Your task to perform on an android device: Open wifi settings Image 0: 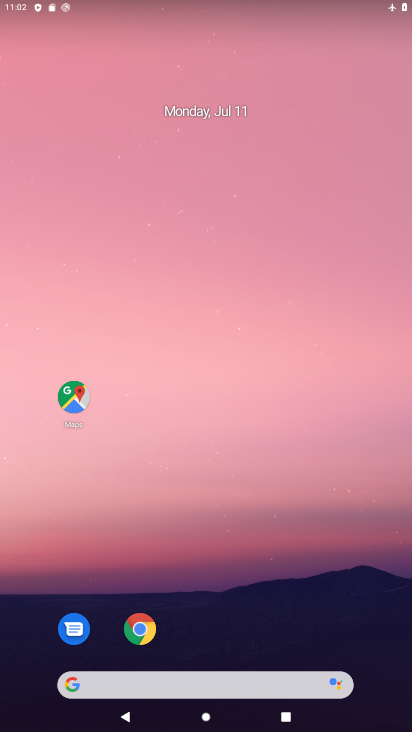
Step 0: drag from (261, 639) to (261, 187)
Your task to perform on an android device: Open wifi settings Image 1: 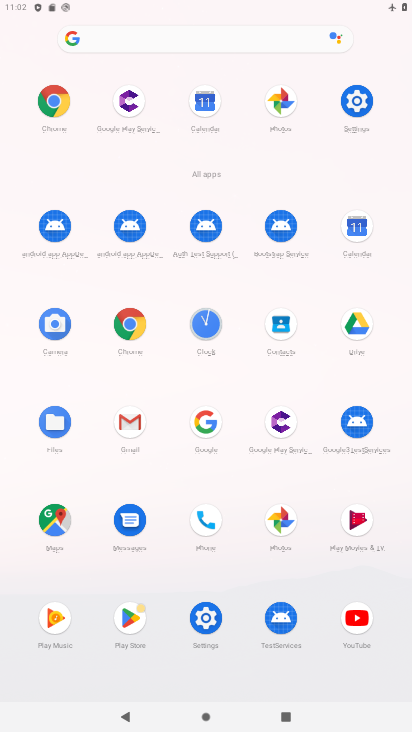
Step 1: click (356, 95)
Your task to perform on an android device: Open wifi settings Image 2: 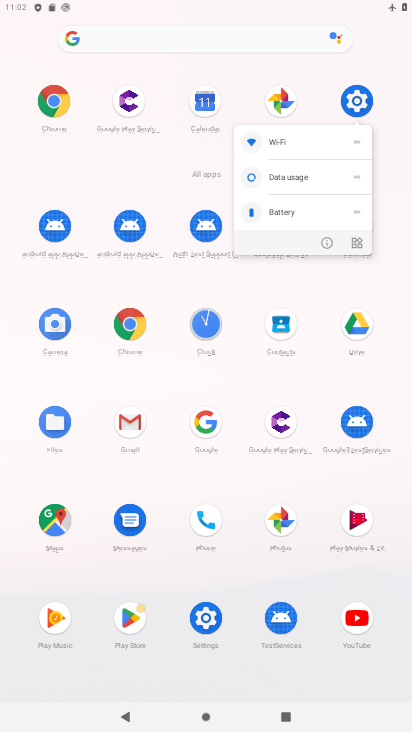
Step 2: click (356, 98)
Your task to perform on an android device: Open wifi settings Image 3: 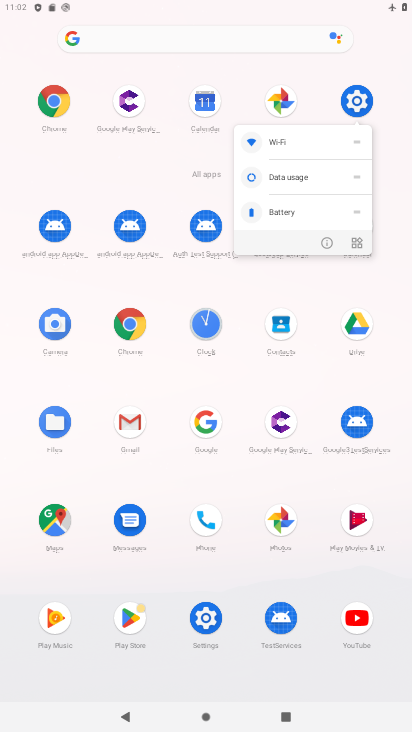
Step 3: click (354, 99)
Your task to perform on an android device: Open wifi settings Image 4: 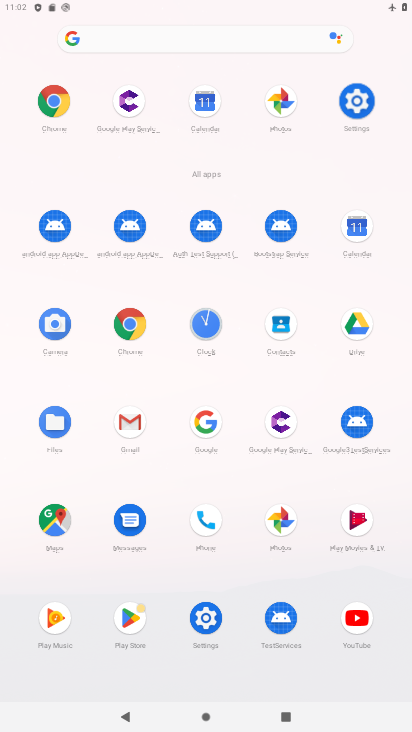
Step 4: click (357, 101)
Your task to perform on an android device: Open wifi settings Image 5: 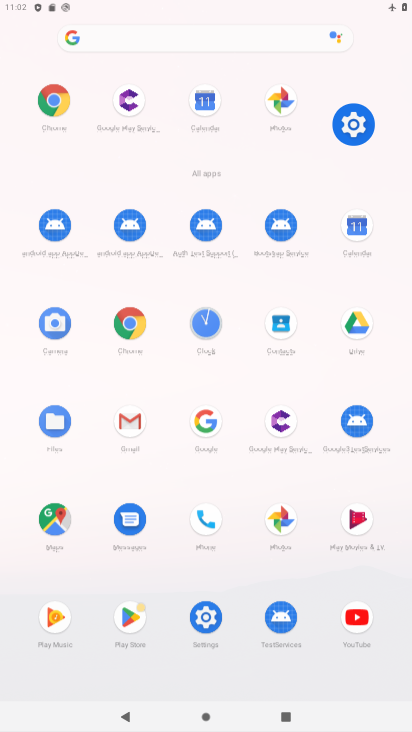
Step 5: click (358, 101)
Your task to perform on an android device: Open wifi settings Image 6: 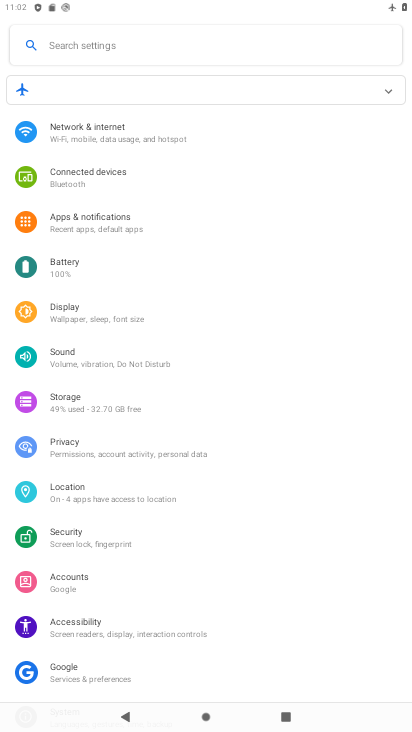
Step 6: click (360, 101)
Your task to perform on an android device: Open wifi settings Image 7: 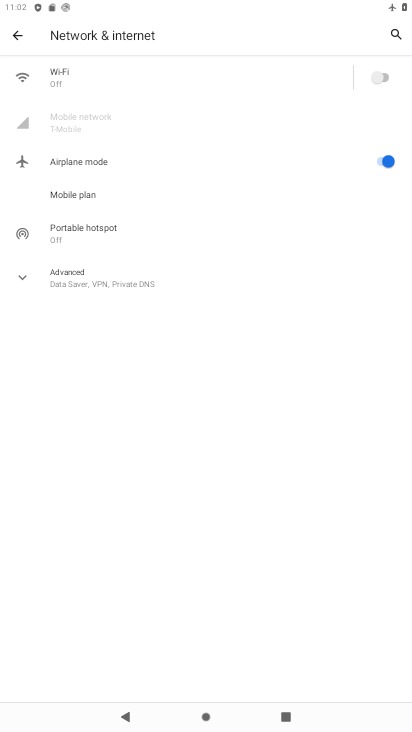
Step 7: click (47, 70)
Your task to perform on an android device: Open wifi settings Image 8: 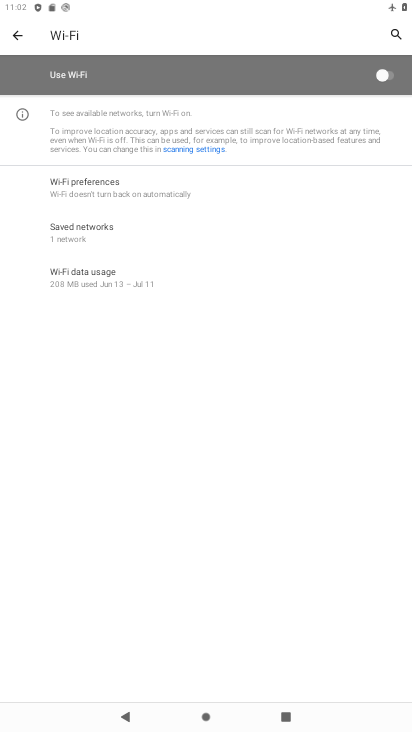
Step 8: click (388, 76)
Your task to perform on an android device: Open wifi settings Image 9: 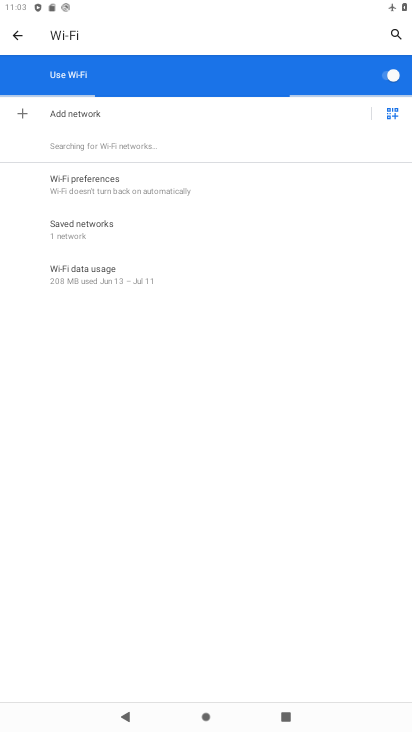
Step 9: task complete